Your task to perform on an android device: Search for seafood restaurants on Google Maps Image 0: 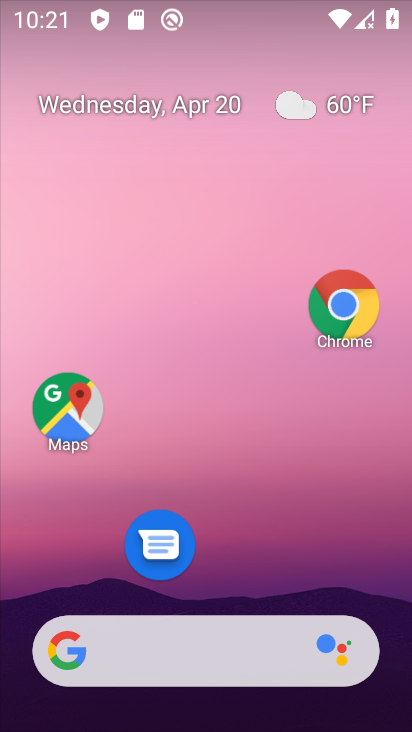
Step 0: drag from (228, 516) to (227, 242)
Your task to perform on an android device: Search for seafood restaurants on Google Maps Image 1: 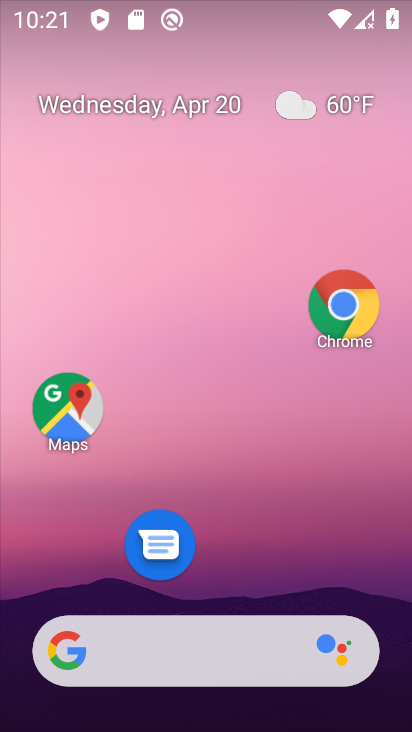
Step 1: click (73, 413)
Your task to perform on an android device: Search for seafood restaurants on Google Maps Image 2: 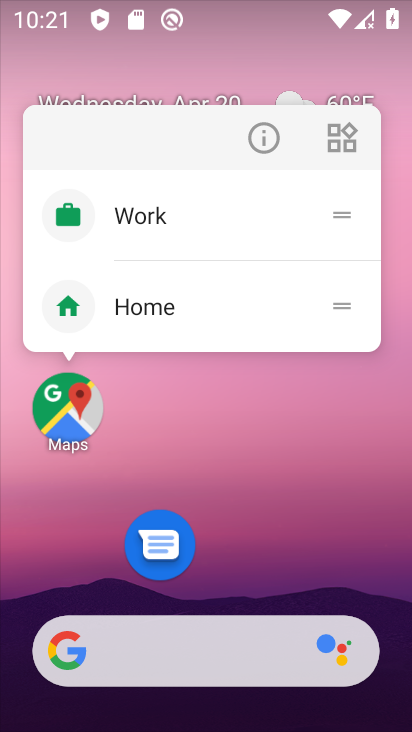
Step 2: click (98, 425)
Your task to perform on an android device: Search for seafood restaurants on Google Maps Image 3: 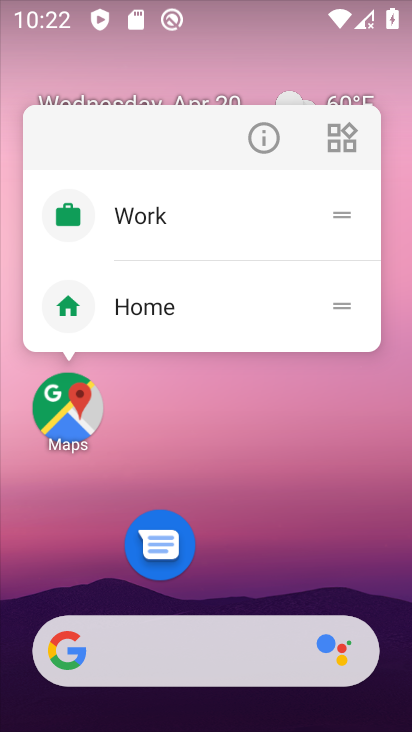
Step 3: click (61, 416)
Your task to perform on an android device: Search for seafood restaurants on Google Maps Image 4: 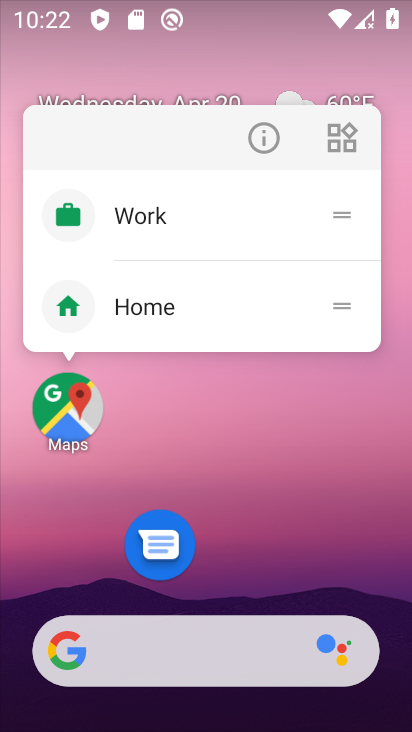
Step 4: click (67, 424)
Your task to perform on an android device: Search for seafood restaurants on Google Maps Image 5: 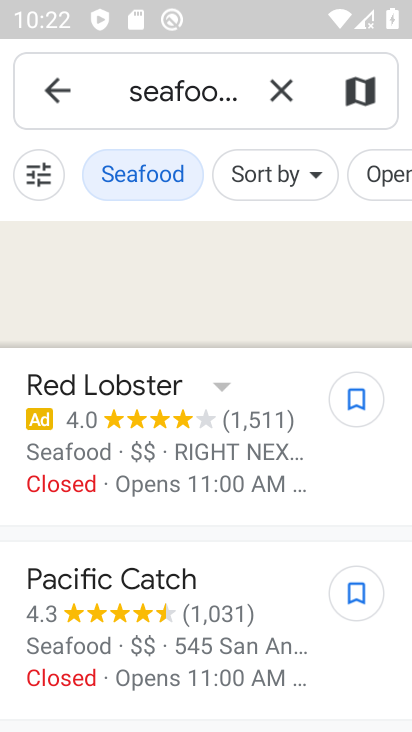
Step 5: task complete